Your task to perform on an android device: Clear the cart on walmart. Add "logitech g910" to the cart on walmart Image 0: 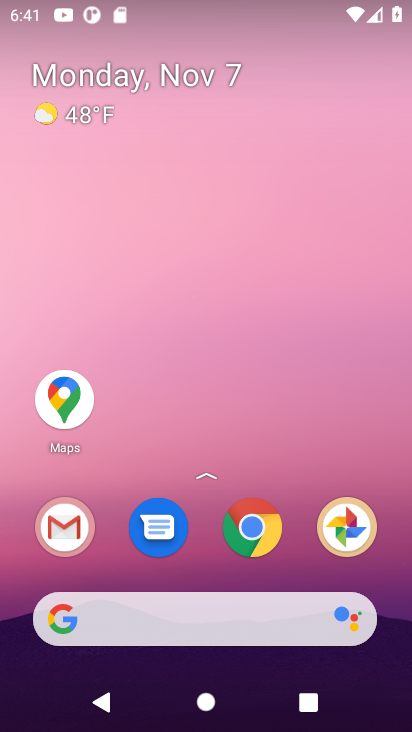
Step 0: click (256, 546)
Your task to perform on an android device: Clear the cart on walmart. Add "logitech g910" to the cart on walmart Image 1: 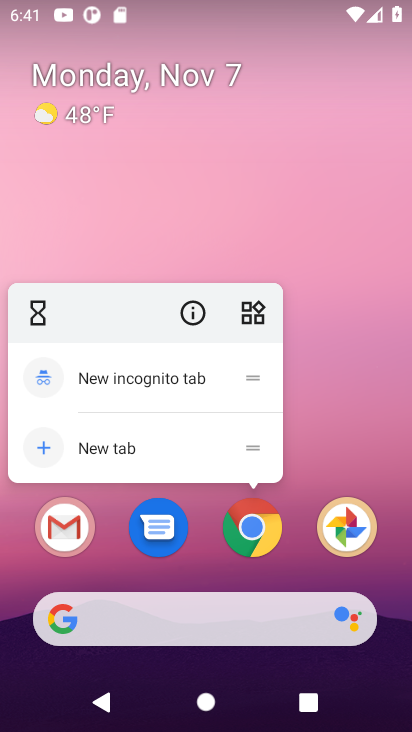
Step 1: click (256, 546)
Your task to perform on an android device: Clear the cart on walmart. Add "logitech g910" to the cart on walmart Image 2: 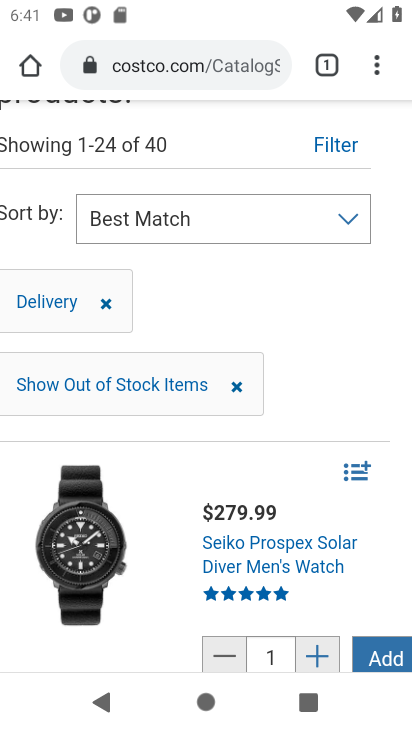
Step 2: click (164, 75)
Your task to perform on an android device: Clear the cart on walmart. Add "logitech g910" to the cart on walmart Image 3: 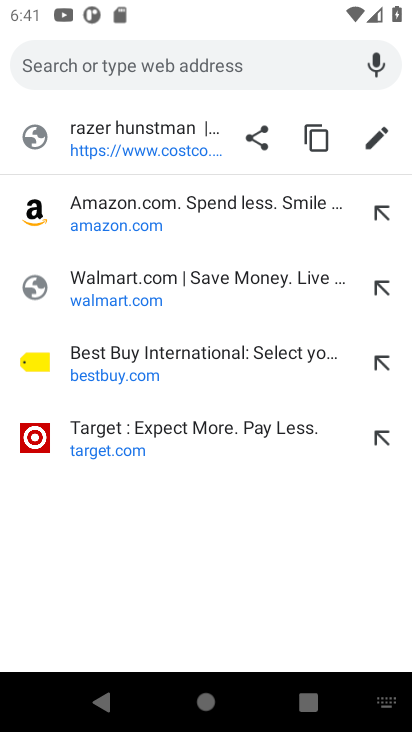
Step 3: type "walmart"
Your task to perform on an android device: Clear the cart on walmart. Add "logitech g910" to the cart on walmart Image 4: 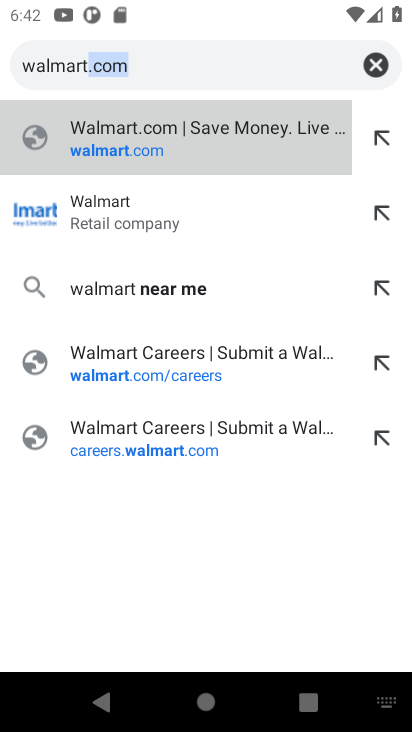
Step 4: click (208, 116)
Your task to perform on an android device: Clear the cart on walmart. Add "logitech g910" to the cart on walmart Image 5: 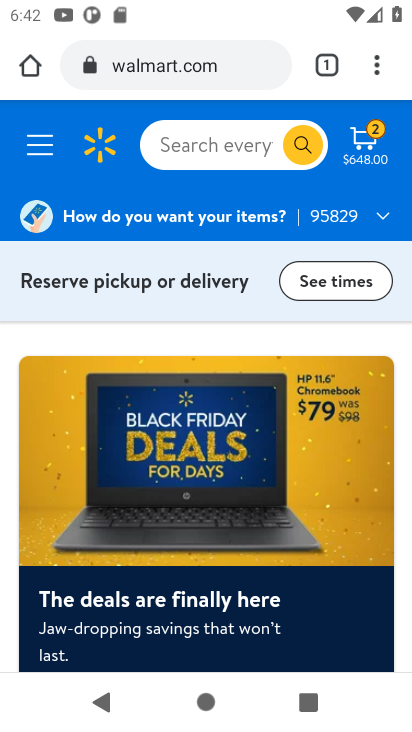
Step 5: click (233, 156)
Your task to perform on an android device: Clear the cart on walmart. Add "logitech g910" to the cart on walmart Image 6: 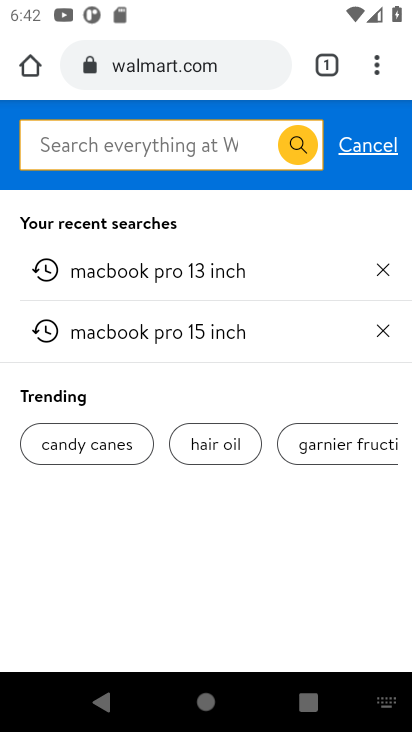
Step 6: type "logitech g910"
Your task to perform on an android device: Clear the cart on walmart. Add "logitech g910" to the cart on walmart Image 7: 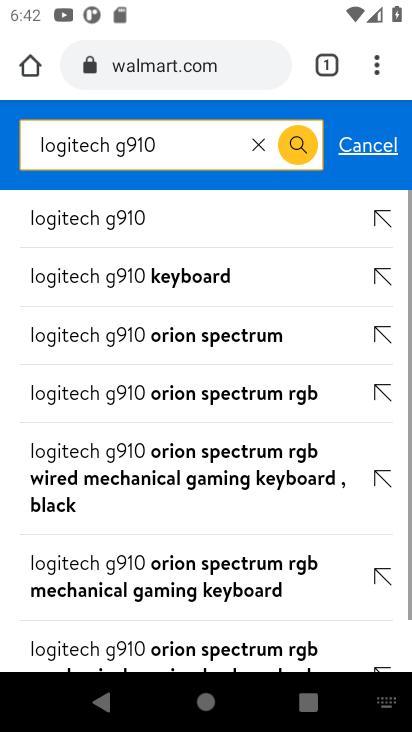
Step 7: click (197, 225)
Your task to perform on an android device: Clear the cart on walmart. Add "logitech g910" to the cart on walmart Image 8: 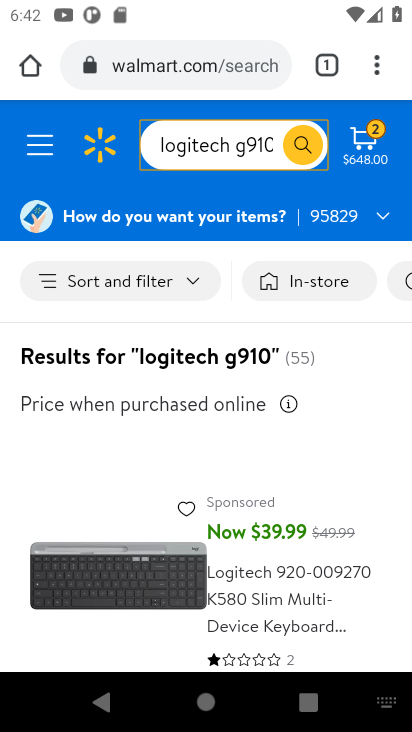
Step 8: click (246, 605)
Your task to perform on an android device: Clear the cart on walmart. Add "logitech g910" to the cart on walmart Image 9: 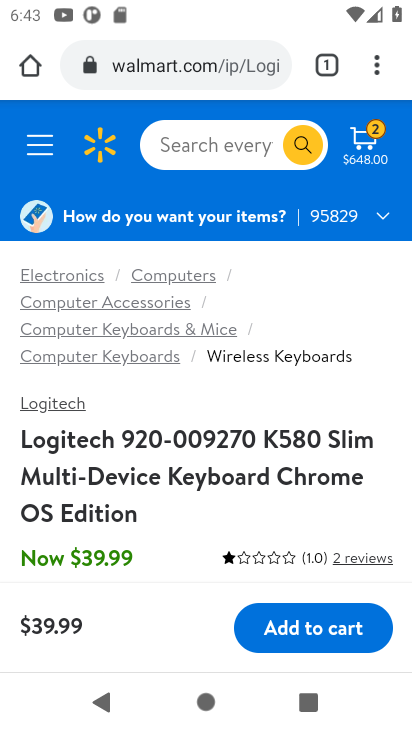
Step 9: click (281, 637)
Your task to perform on an android device: Clear the cart on walmart. Add "logitech g910" to the cart on walmart Image 10: 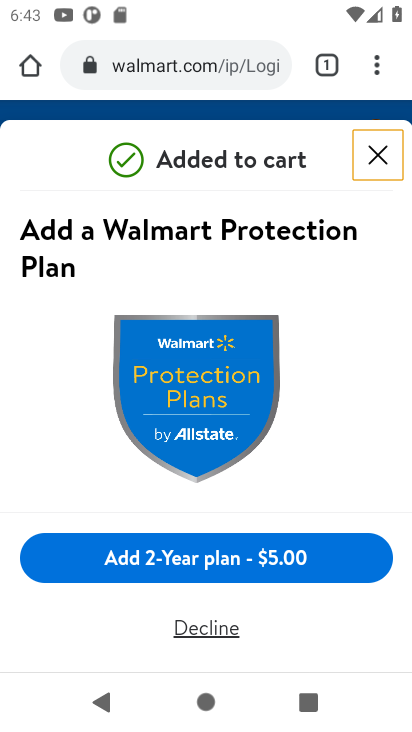
Step 10: task complete